Your task to perform on an android device: Go to settings Image 0: 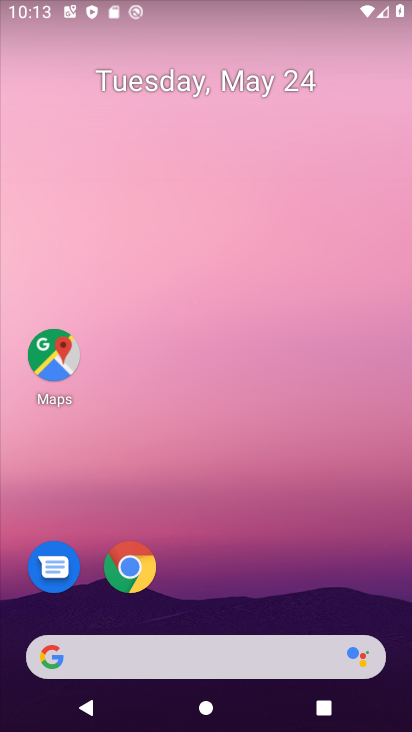
Step 0: click (324, 255)
Your task to perform on an android device: Go to settings Image 1: 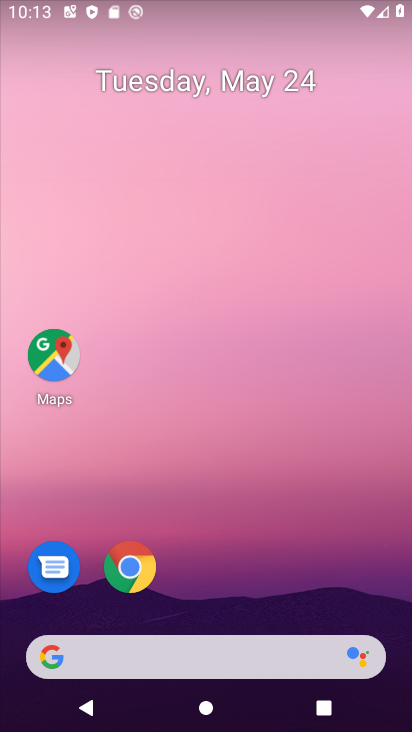
Step 1: drag from (394, 691) to (296, 137)
Your task to perform on an android device: Go to settings Image 2: 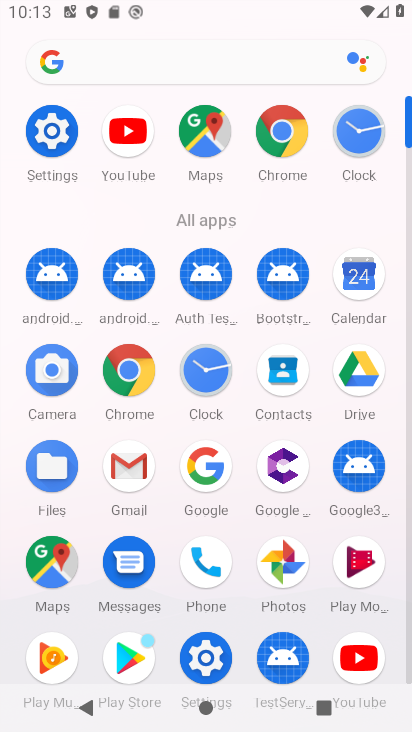
Step 2: click (51, 132)
Your task to perform on an android device: Go to settings Image 3: 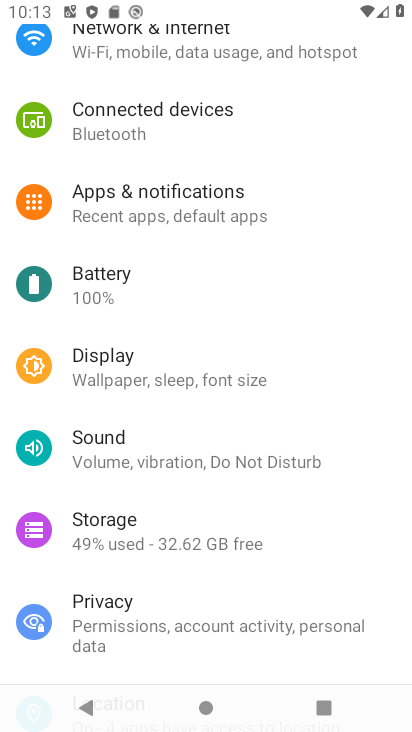
Step 3: task complete